Your task to perform on an android device: add a contact Image 0: 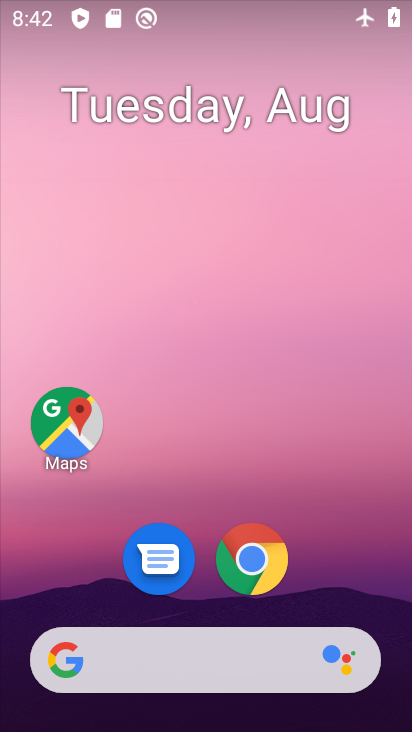
Step 0: drag from (315, 573) to (334, 46)
Your task to perform on an android device: add a contact Image 1: 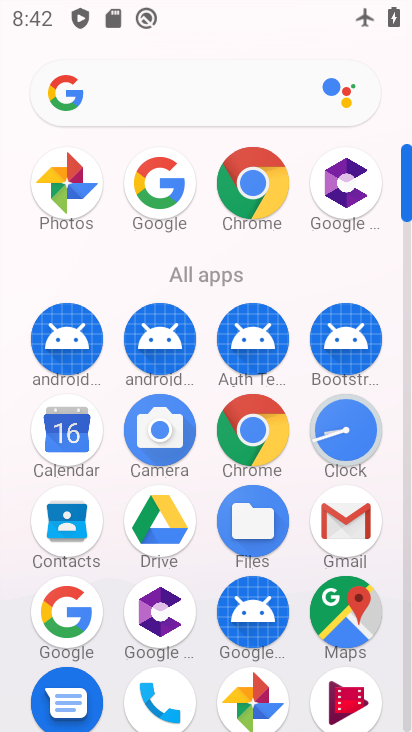
Step 1: drag from (210, 646) to (254, 169)
Your task to perform on an android device: add a contact Image 2: 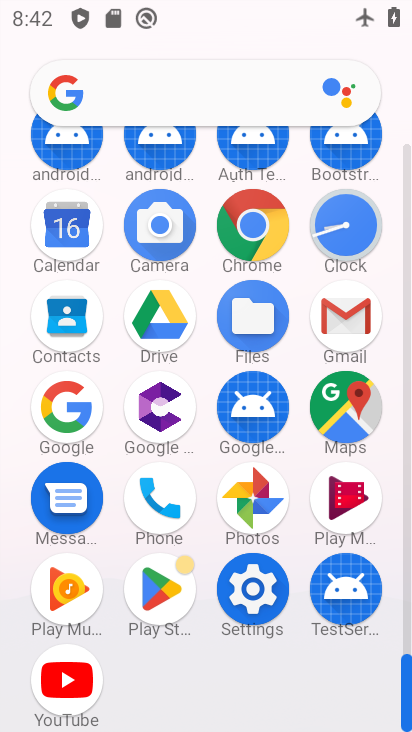
Step 2: click (56, 321)
Your task to perform on an android device: add a contact Image 3: 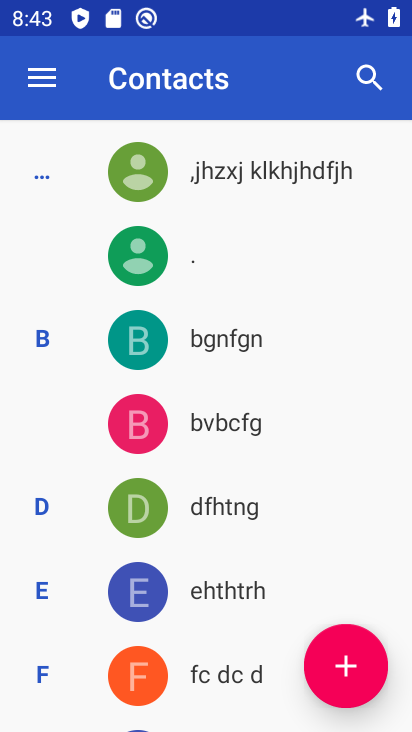
Step 3: task complete